Your task to perform on an android device: check data usage Image 0: 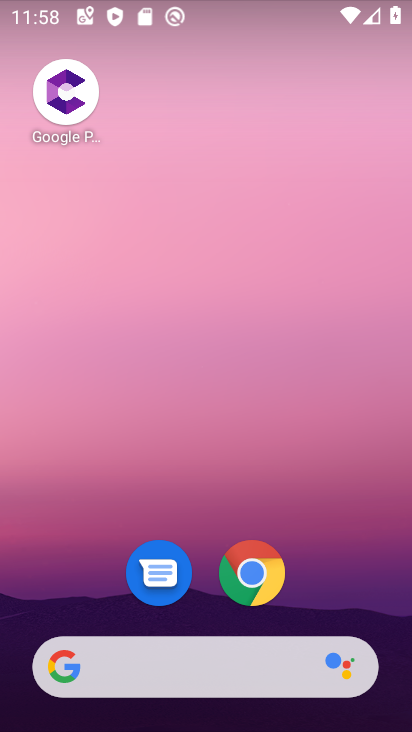
Step 0: drag from (211, 714) to (390, 160)
Your task to perform on an android device: check data usage Image 1: 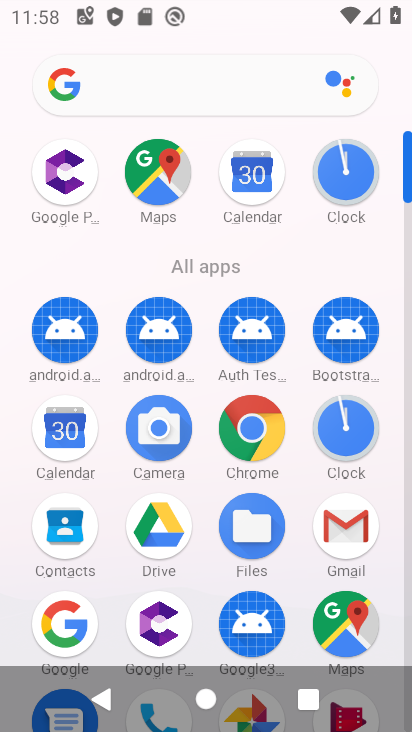
Step 1: drag from (161, 563) to (242, 1)
Your task to perform on an android device: check data usage Image 2: 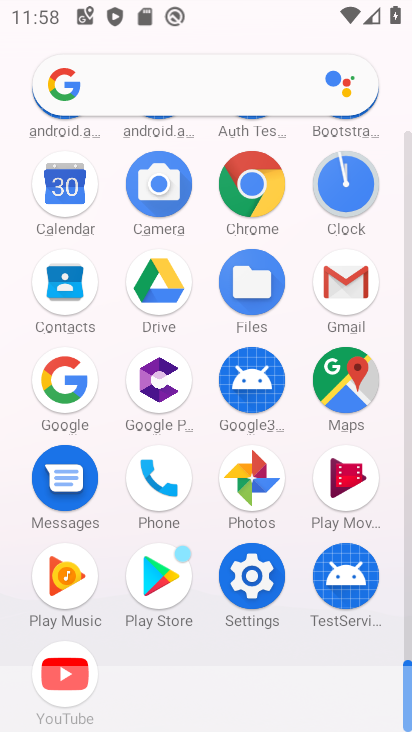
Step 2: click (257, 583)
Your task to perform on an android device: check data usage Image 3: 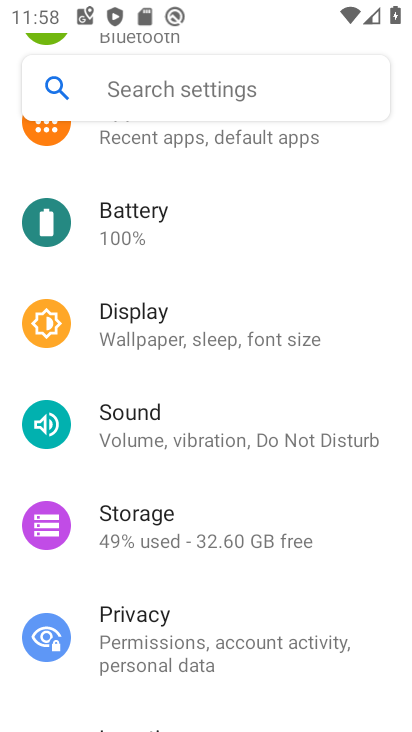
Step 3: drag from (270, 364) to (219, 704)
Your task to perform on an android device: check data usage Image 4: 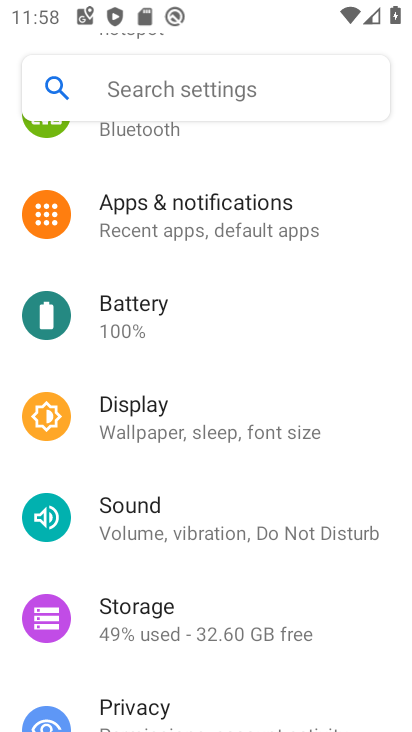
Step 4: drag from (298, 165) to (354, 603)
Your task to perform on an android device: check data usage Image 5: 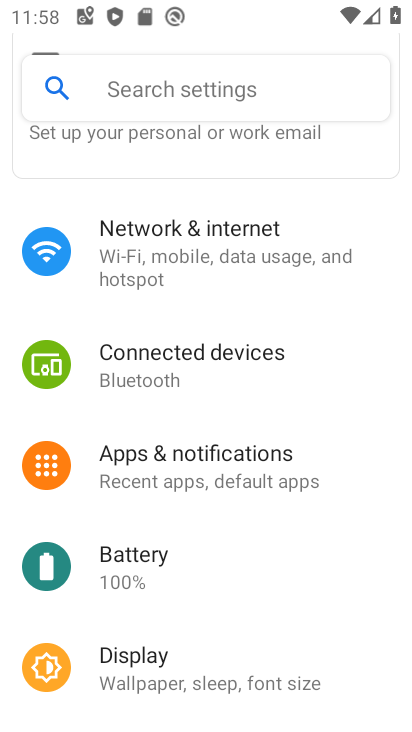
Step 5: click (185, 239)
Your task to perform on an android device: check data usage Image 6: 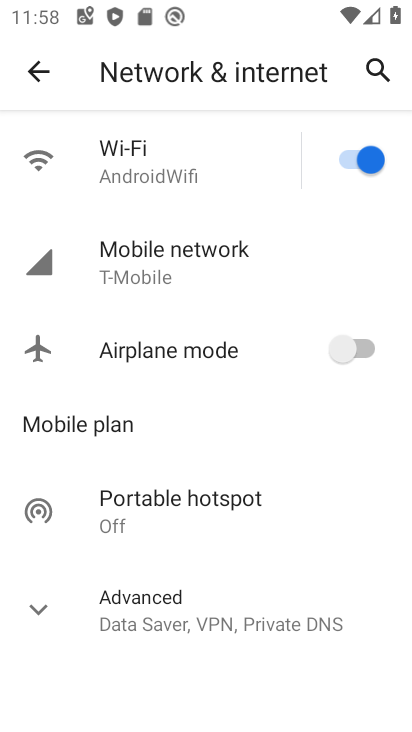
Step 6: click (210, 271)
Your task to perform on an android device: check data usage Image 7: 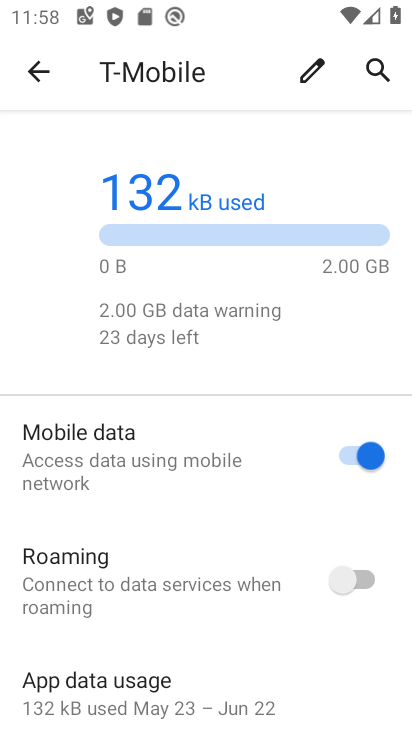
Step 7: task complete